Your task to perform on an android device: Open Google Image 0: 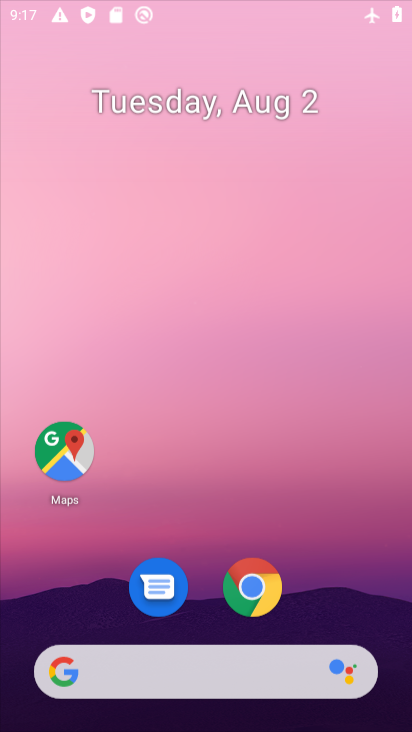
Step 0: drag from (392, 624) to (232, 104)
Your task to perform on an android device: Open Google Image 1: 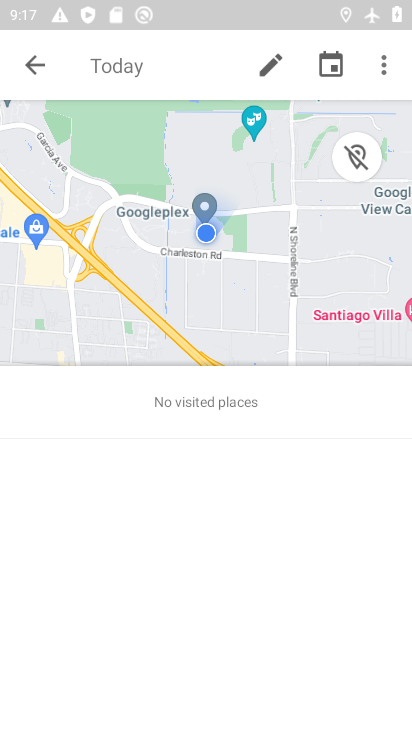
Step 1: press back button
Your task to perform on an android device: Open Google Image 2: 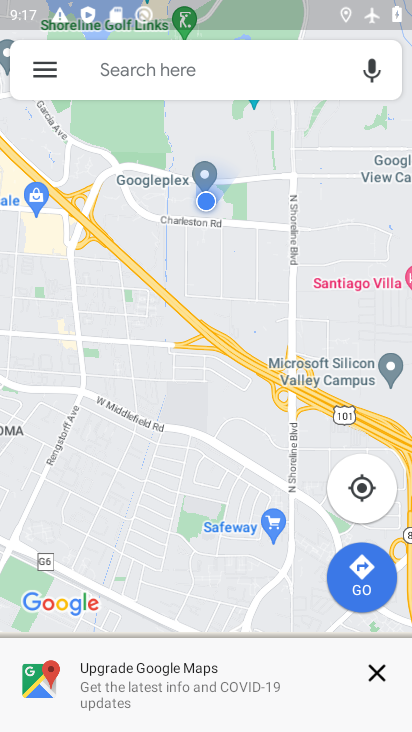
Step 2: press home button
Your task to perform on an android device: Open Google Image 3: 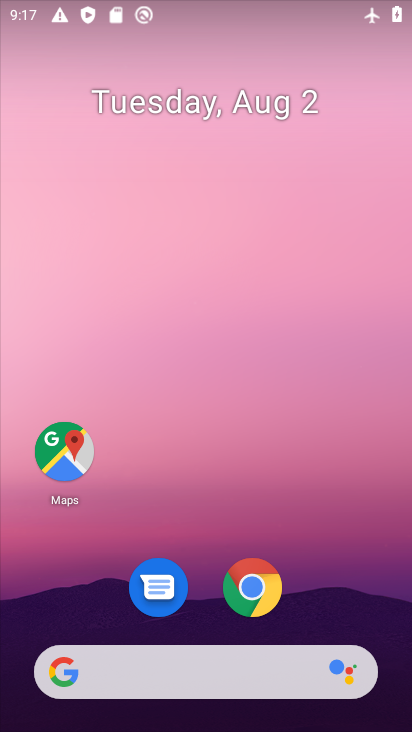
Step 3: drag from (300, 613) to (230, 143)
Your task to perform on an android device: Open Google Image 4: 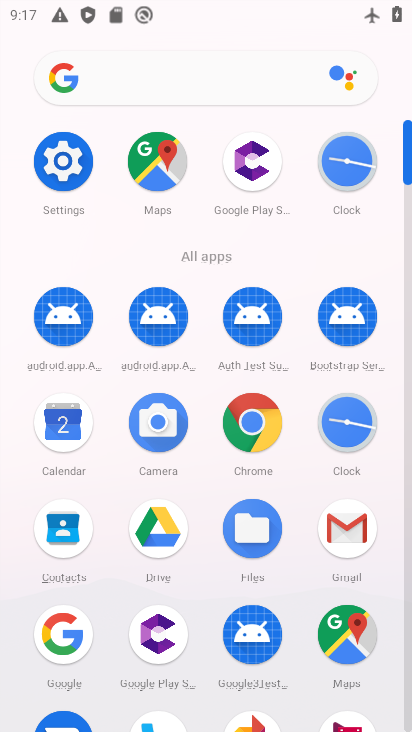
Step 4: click (72, 628)
Your task to perform on an android device: Open Google Image 5: 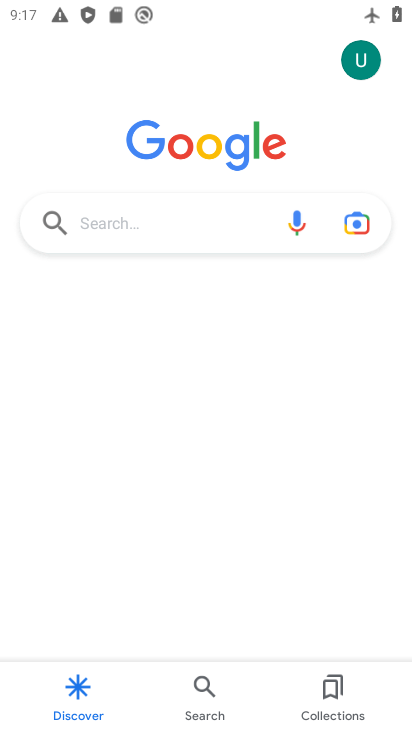
Step 5: task complete